Your task to perform on an android device: Find the nearest electronics store that's open Image 0: 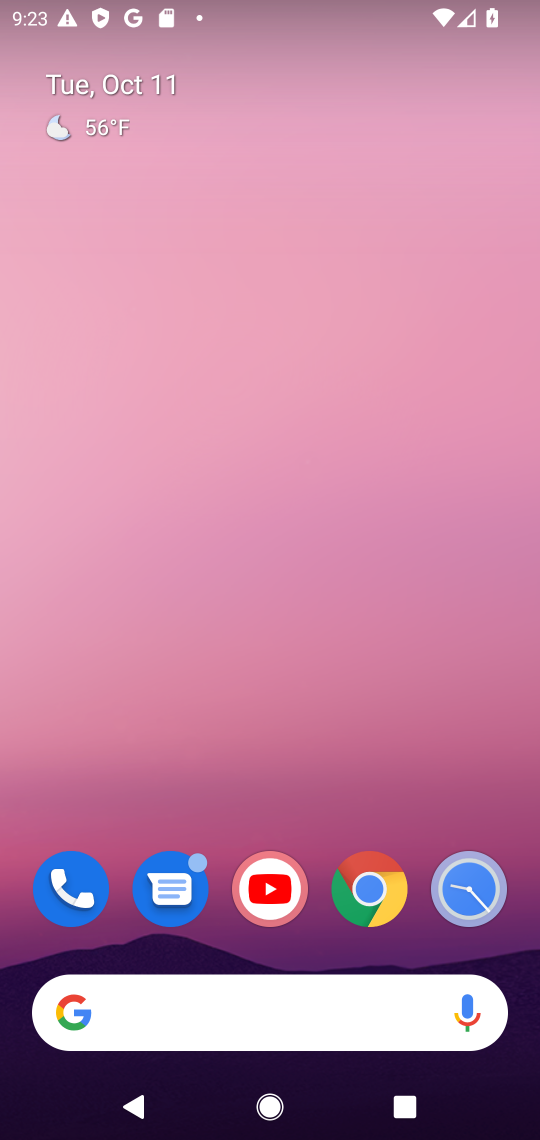
Step 0: click (197, 1027)
Your task to perform on an android device: Find the nearest electronics store that's open Image 1: 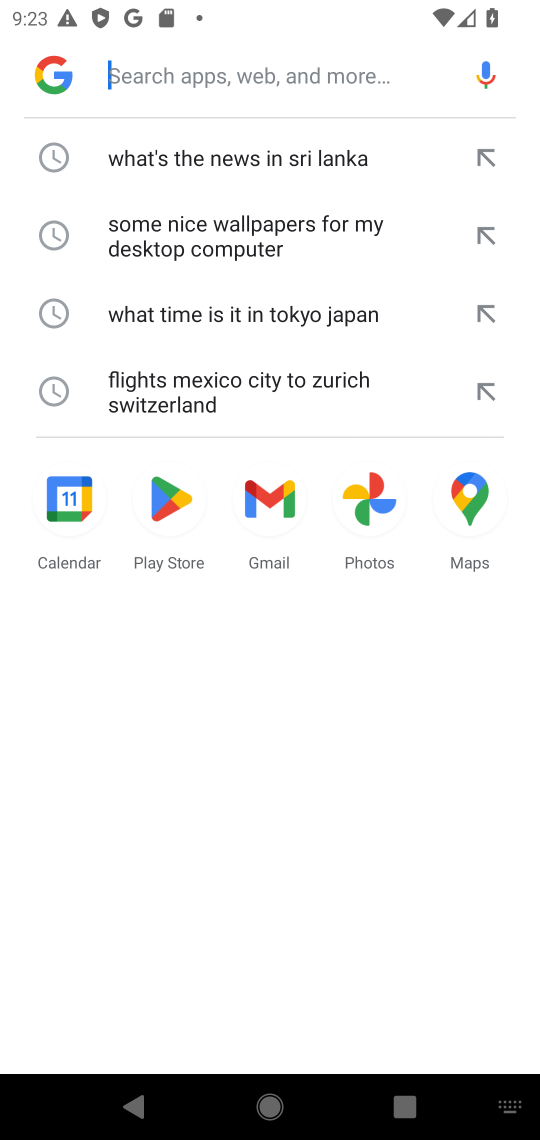
Step 1: click (178, 68)
Your task to perform on an android device: Find the nearest electronics store that's open Image 2: 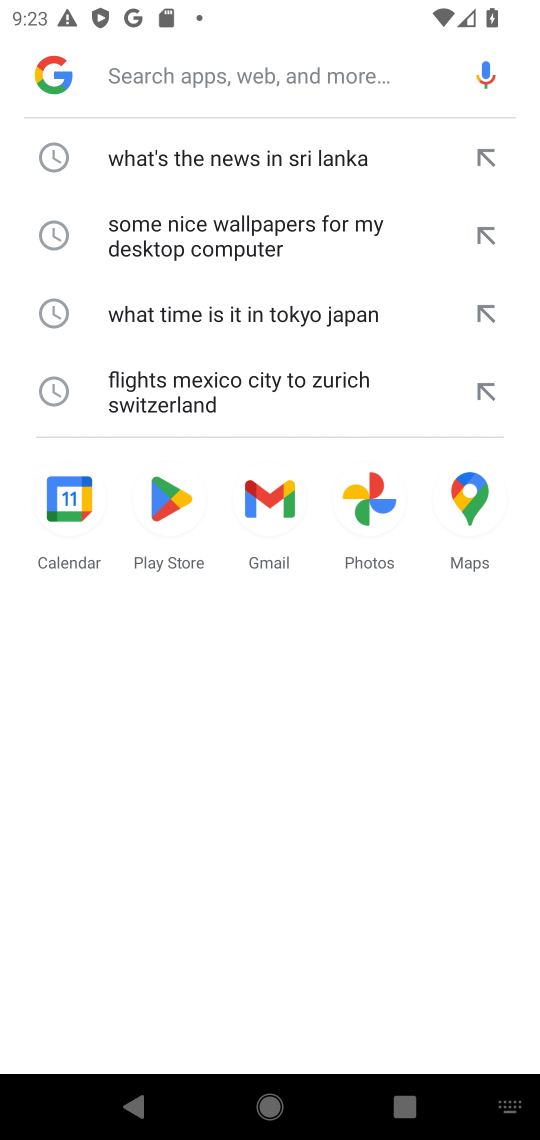
Step 2: click (100, 73)
Your task to perform on an android device: Find the nearest electronics store that's open Image 3: 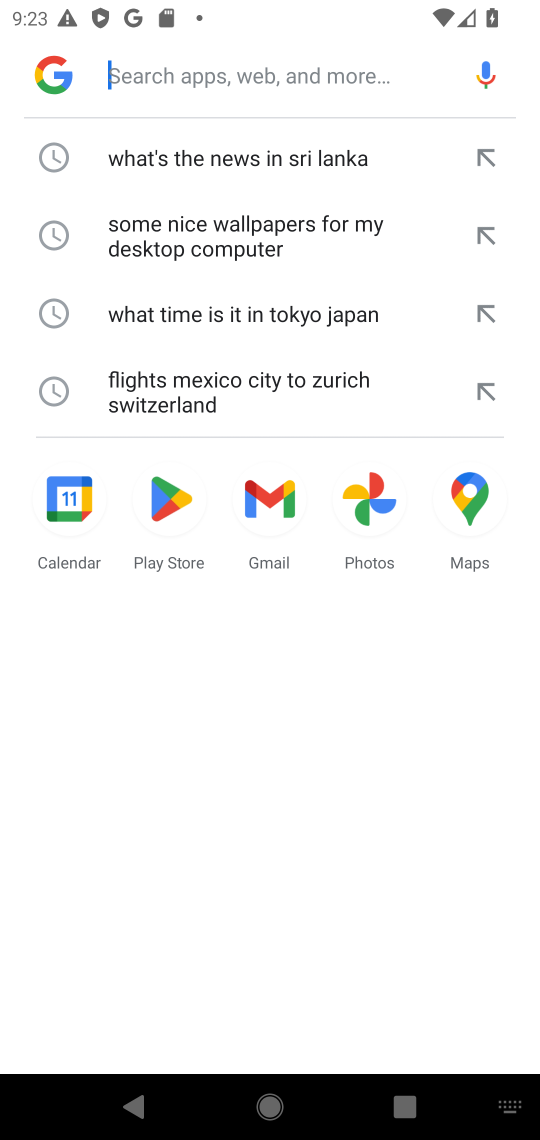
Step 3: type "nearest electronics store that's open"
Your task to perform on an android device: Find the nearest electronics store that's open Image 4: 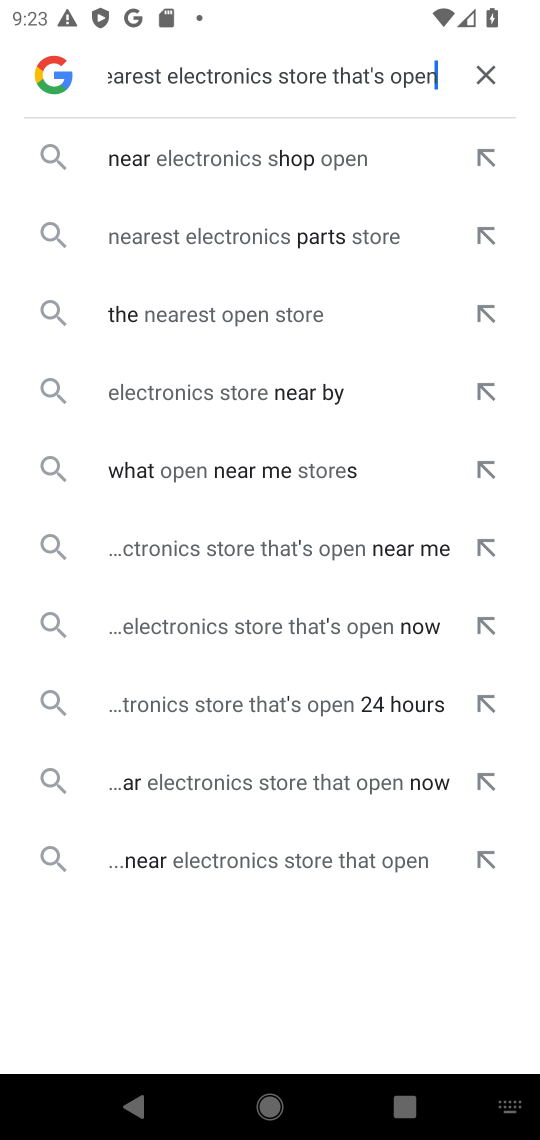
Step 4: click (248, 169)
Your task to perform on an android device: Find the nearest electronics store that's open Image 5: 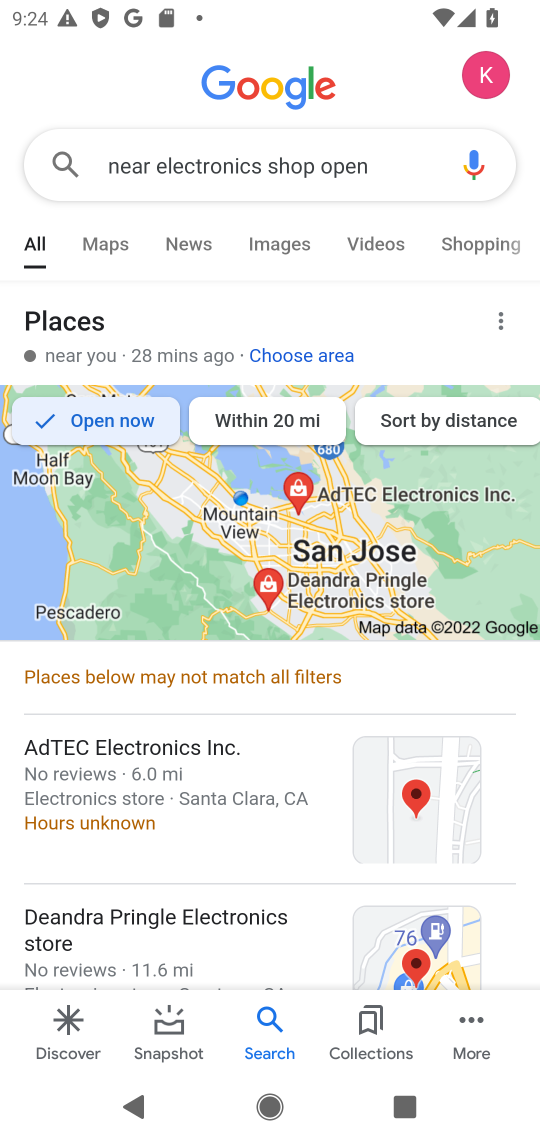
Step 5: task complete